Your task to perform on an android device: Open sound settings Image 0: 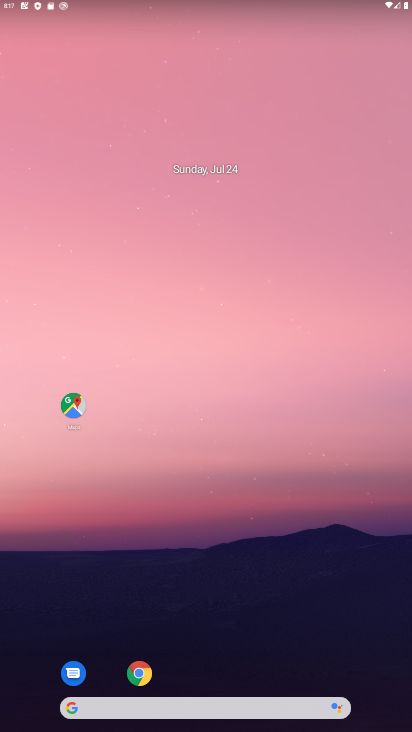
Step 0: drag from (177, 649) to (191, 88)
Your task to perform on an android device: Open sound settings Image 1: 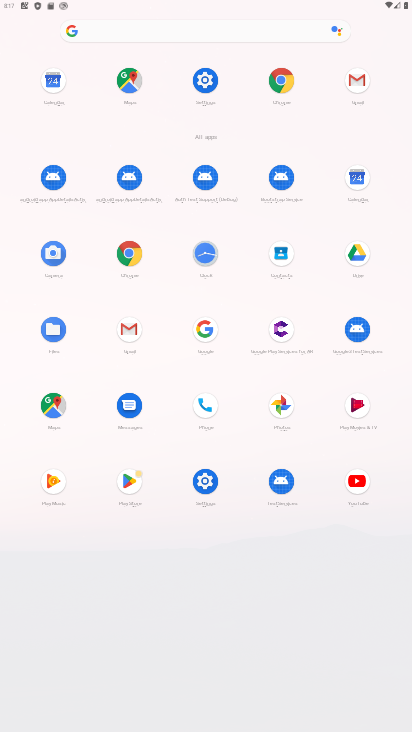
Step 1: click (210, 80)
Your task to perform on an android device: Open sound settings Image 2: 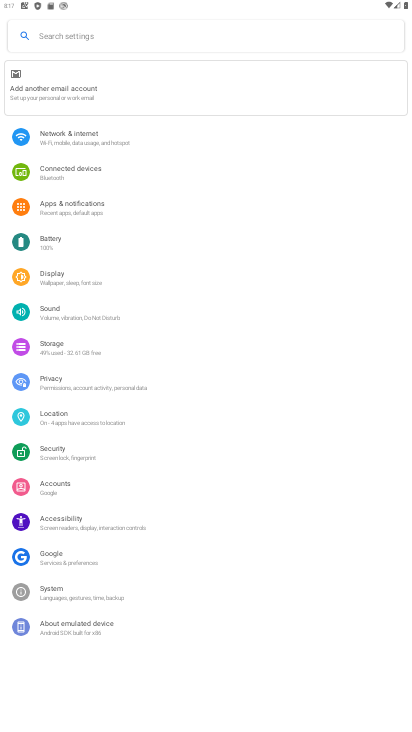
Step 2: click (63, 313)
Your task to perform on an android device: Open sound settings Image 3: 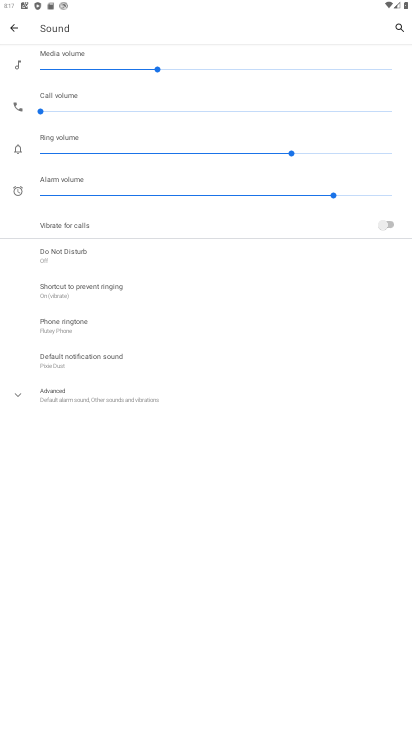
Step 3: task complete